Your task to perform on an android device: What's the weather today? Image 0: 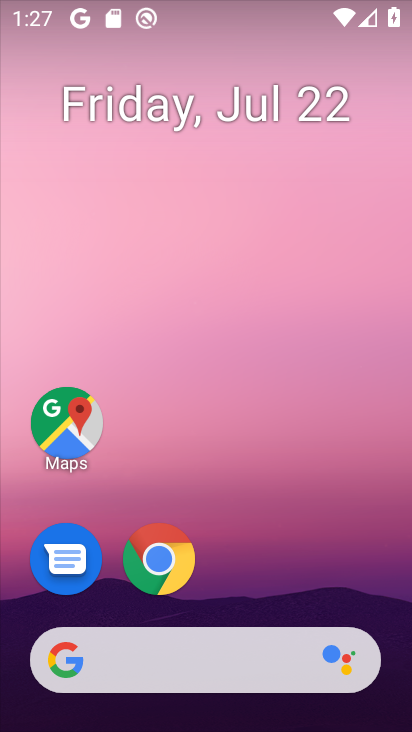
Step 0: click (189, 654)
Your task to perform on an android device: What's the weather today? Image 1: 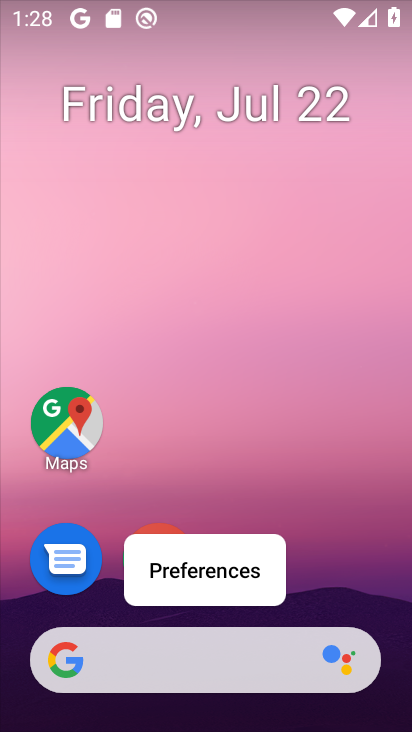
Step 1: click (199, 660)
Your task to perform on an android device: What's the weather today? Image 2: 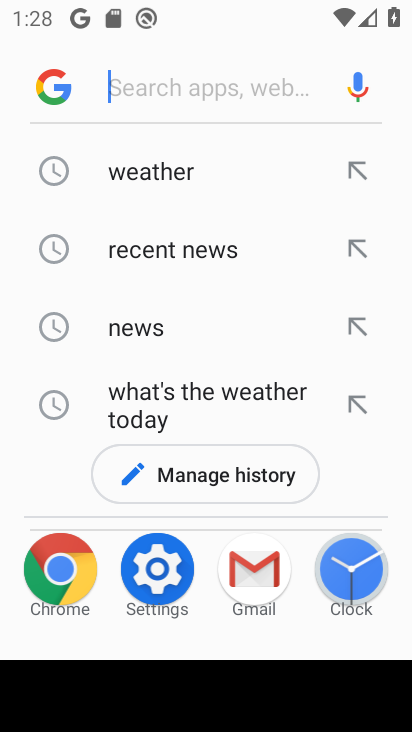
Step 2: click (150, 176)
Your task to perform on an android device: What's the weather today? Image 3: 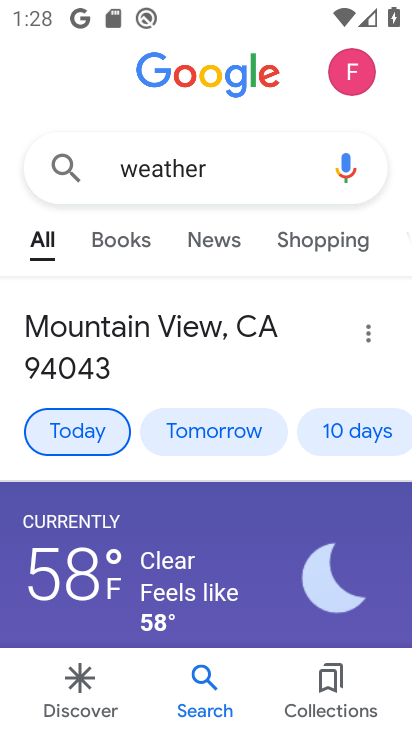
Step 3: task complete